Your task to perform on an android device: turn off wifi Image 0: 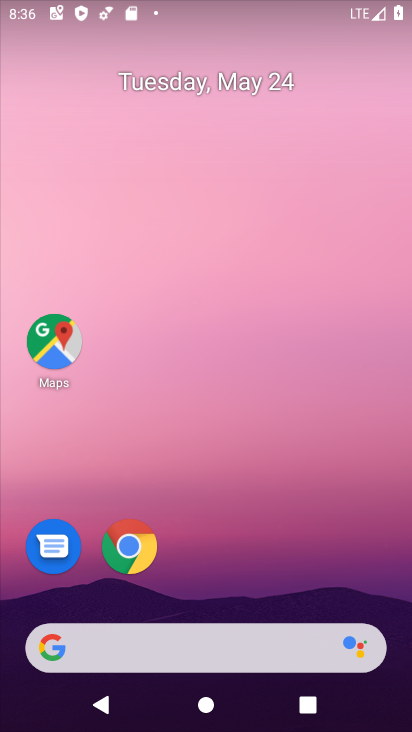
Step 0: drag from (271, 531) to (258, 29)
Your task to perform on an android device: turn off wifi Image 1: 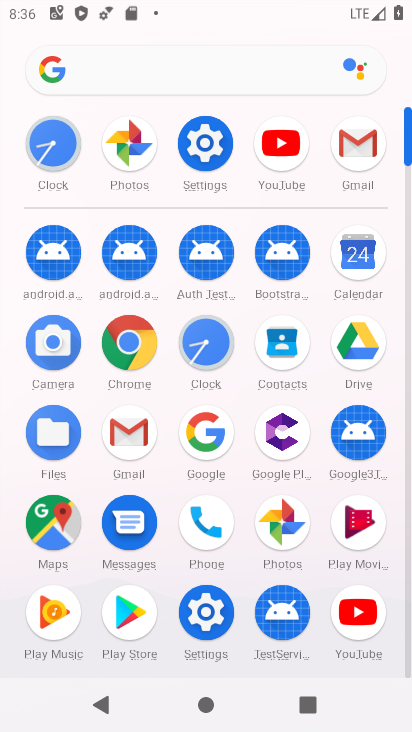
Step 1: click (210, 131)
Your task to perform on an android device: turn off wifi Image 2: 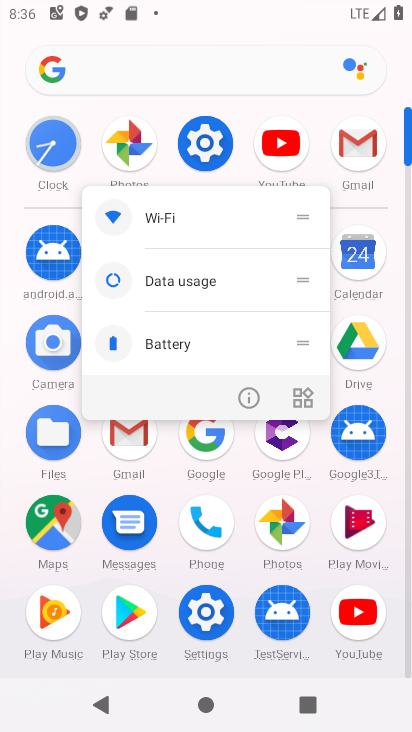
Step 2: click (210, 128)
Your task to perform on an android device: turn off wifi Image 3: 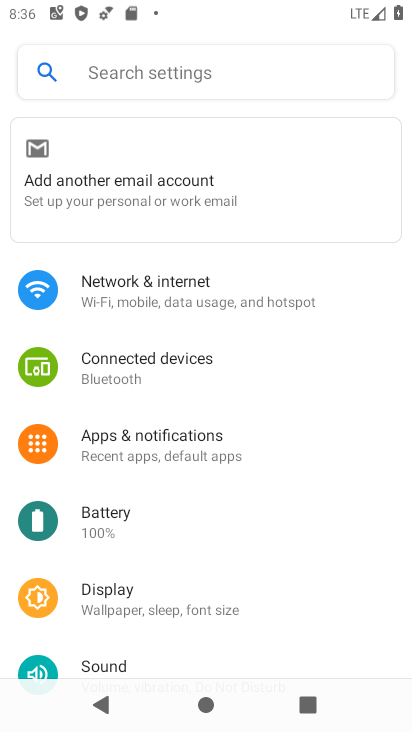
Step 3: click (215, 286)
Your task to perform on an android device: turn off wifi Image 4: 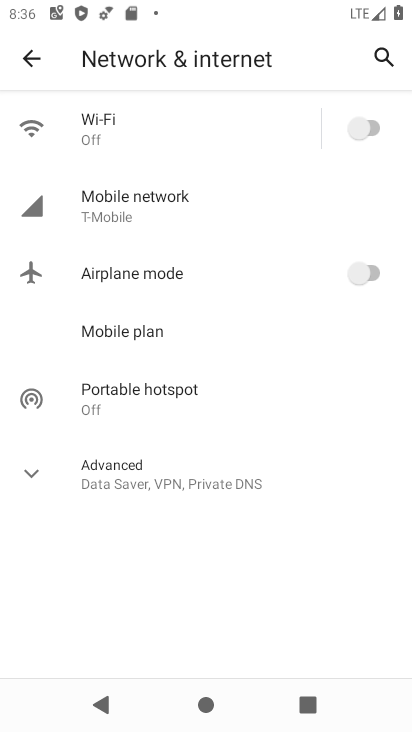
Step 4: task complete